Your task to perform on an android device: Do I have any events today? Image 0: 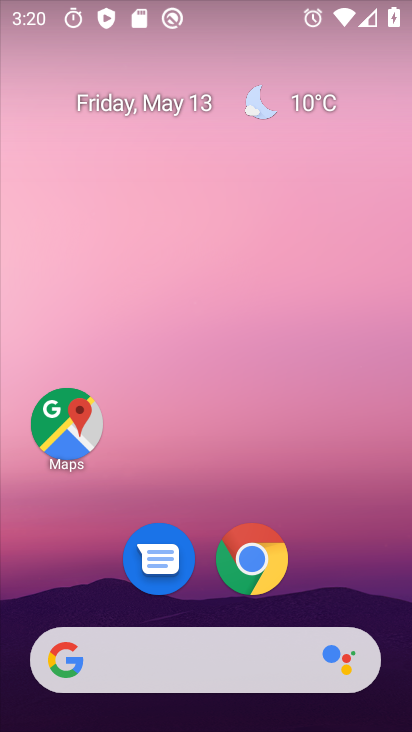
Step 0: drag from (223, 622) to (224, 249)
Your task to perform on an android device: Do I have any events today? Image 1: 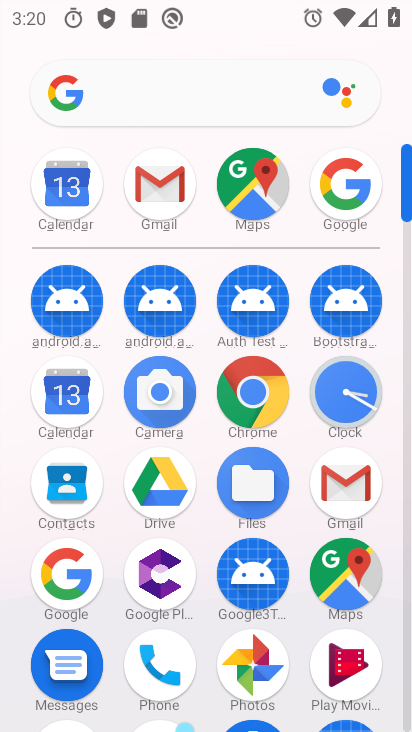
Step 1: click (67, 198)
Your task to perform on an android device: Do I have any events today? Image 2: 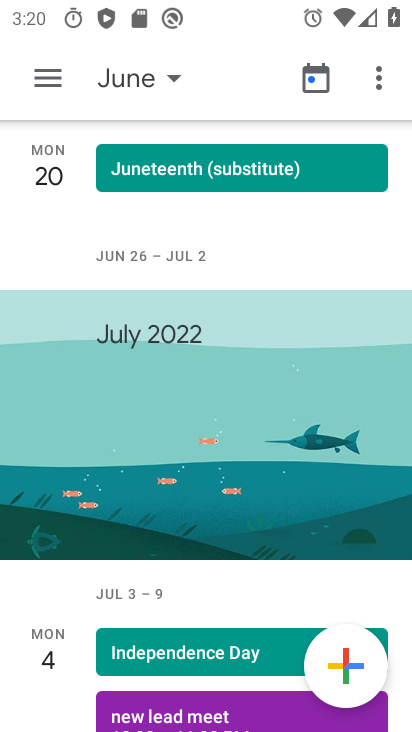
Step 2: click (143, 78)
Your task to perform on an android device: Do I have any events today? Image 3: 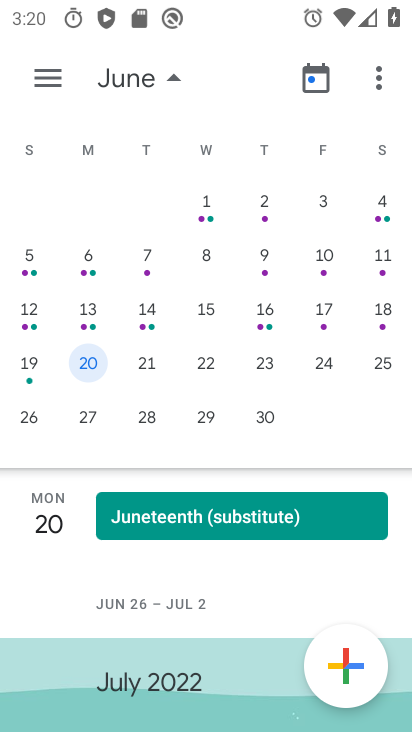
Step 3: drag from (67, 241) to (335, 259)
Your task to perform on an android device: Do I have any events today? Image 4: 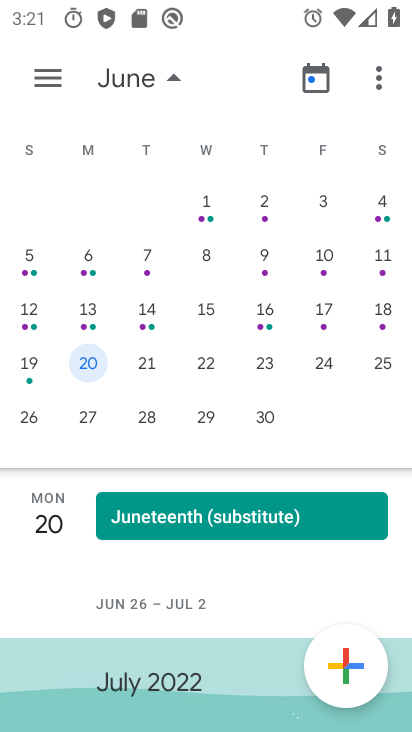
Step 4: drag from (52, 279) to (364, 274)
Your task to perform on an android device: Do I have any events today? Image 5: 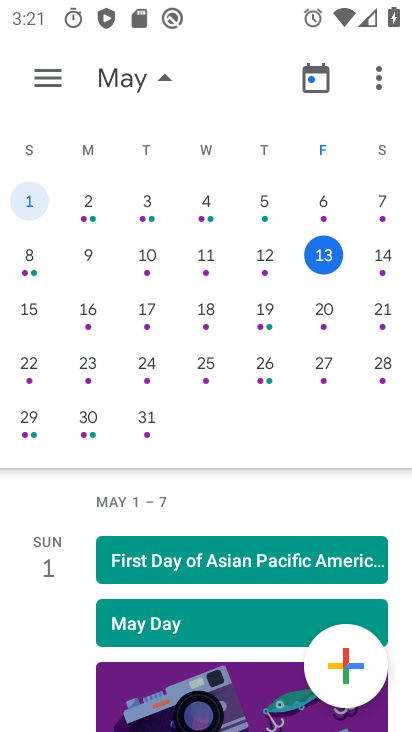
Step 5: click (307, 253)
Your task to perform on an android device: Do I have any events today? Image 6: 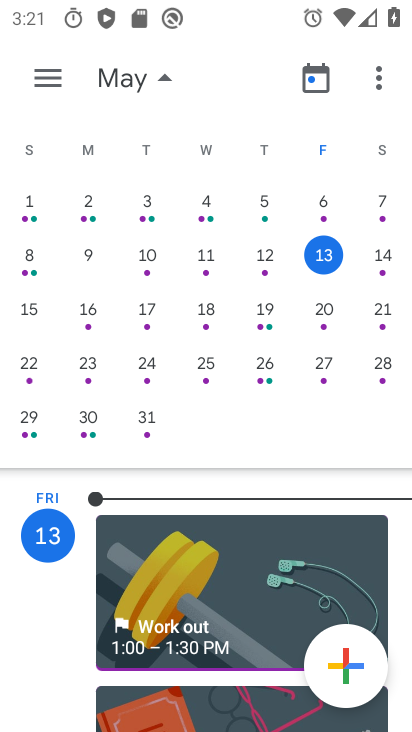
Step 6: task complete